Your task to perform on an android device: choose inbox layout in the gmail app Image 0: 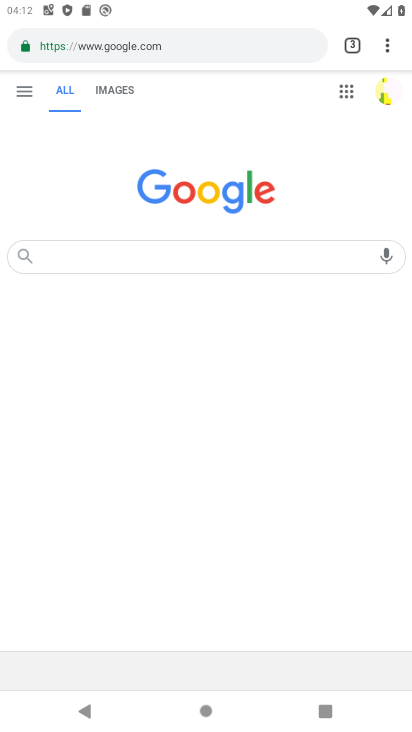
Step 0: press home button
Your task to perform on an android device: choose inbox layout in the gmail app Image 1: 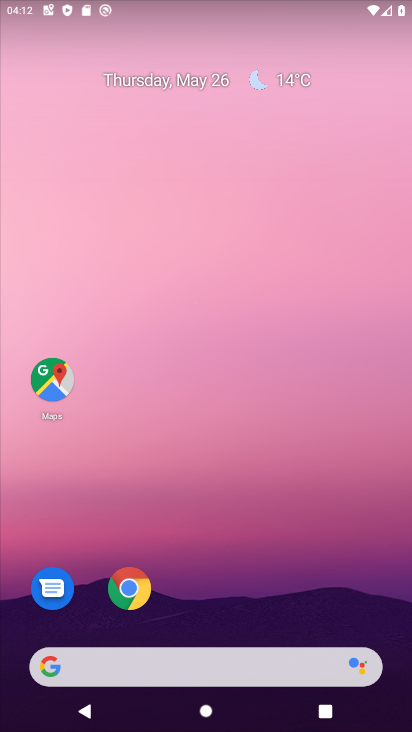
Step 1: drag from (197, 615) to (255, 183)
Your task to perform on an android device: choose inbox layout in the gmail app Image 2: 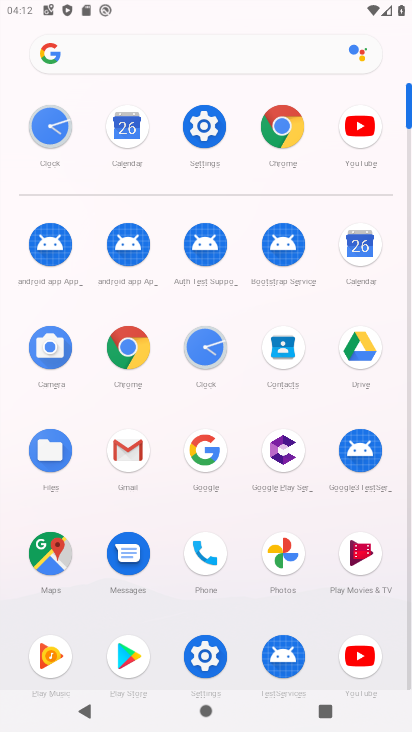
Step 2: click (138, 445)
Your task to perform on an android device: choose inbox layout in the gmail app Image 3: 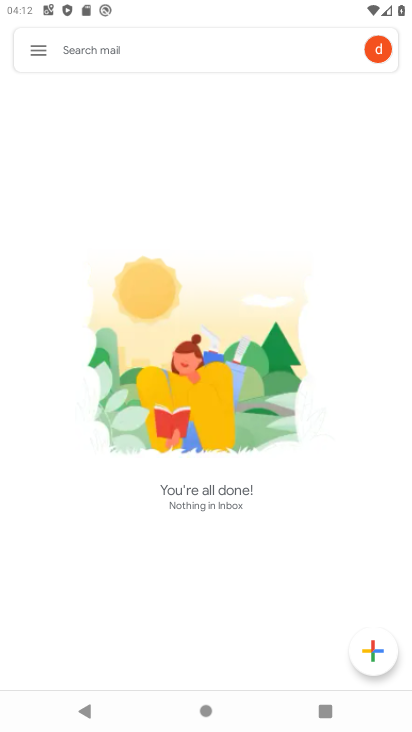
Step 3: click (43, 49)
Your task to perform on an android device: choose inbox layout in the gmail app Image 4: 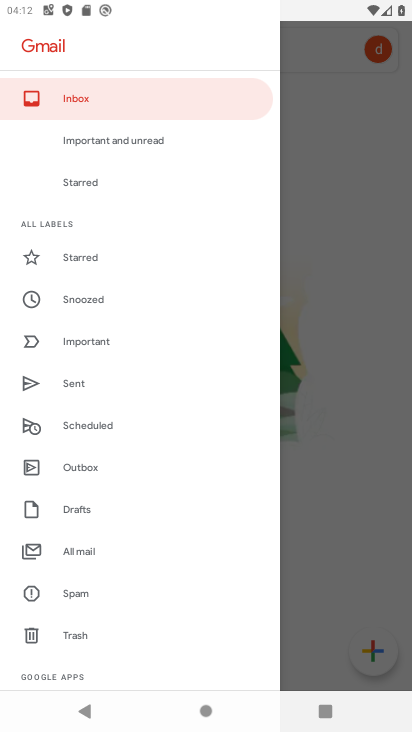
Step 4: task complete